Your task to perform on an android device: move an email to a new category in the gmail app Image 0: 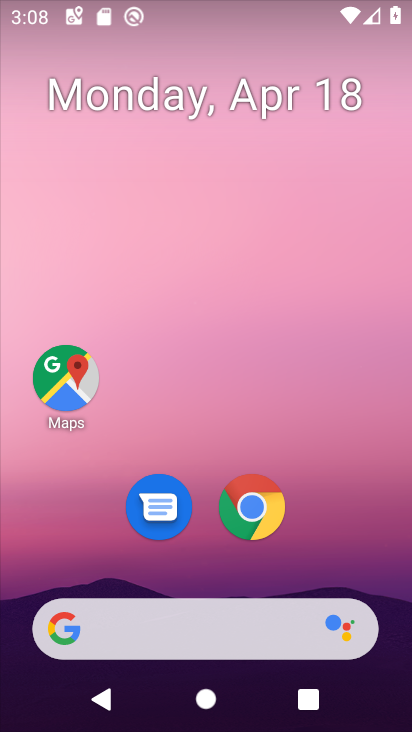
Step 0: drag from (218, 489) to (258, 66)
Your task to perform on an android device: move an email to a new category in the gmail app Image 1: 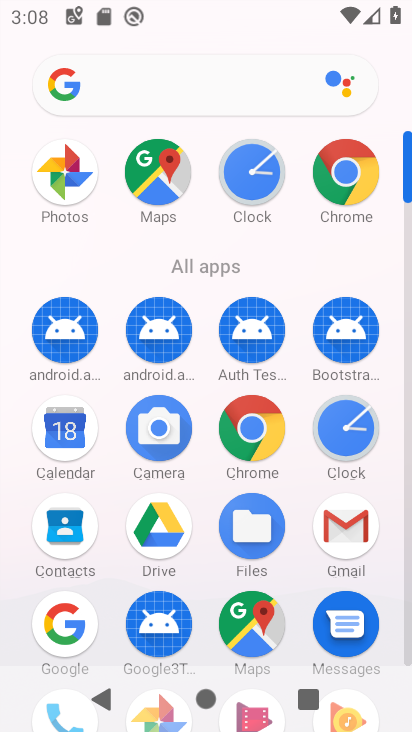
Step 1: click (340, 530)
Your task to perform on an android device: move an email to a new category in the gmail app Image 2: 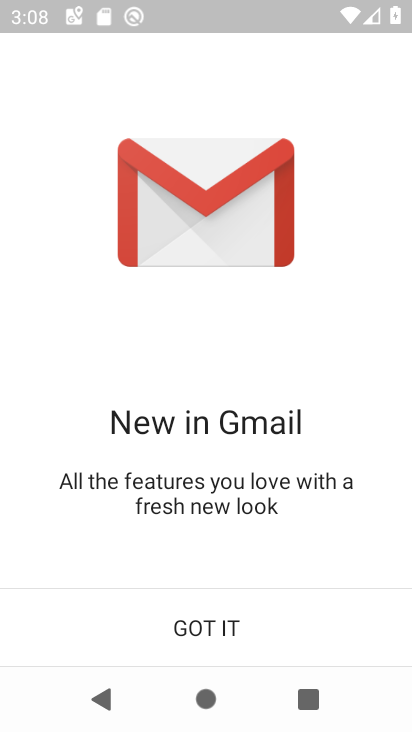
Step 2: click (213, 608)
Your task to perform on an android device: move an email to a new category in the gmail app Image 3: 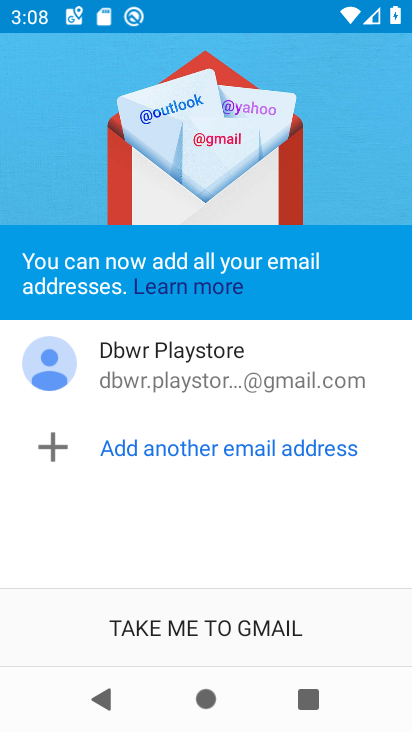
Step 3: click (213, 608)
Your task to perform on an android device: move an email to a new category in the gmail app Image 4: 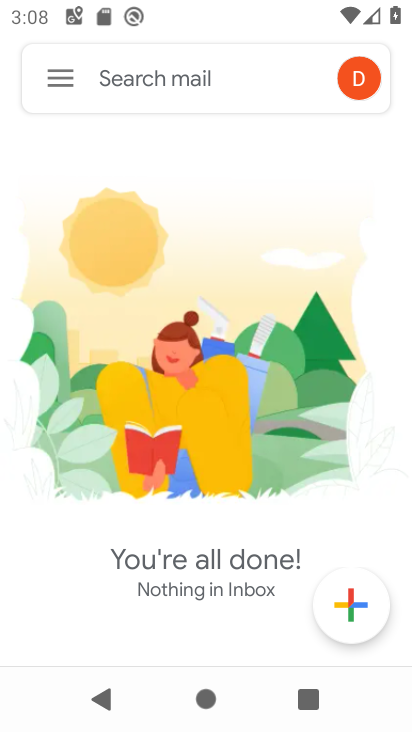
Step 4: task complete